Your task to perform on an android device: Play the last video I watched on Youtube Image 0: 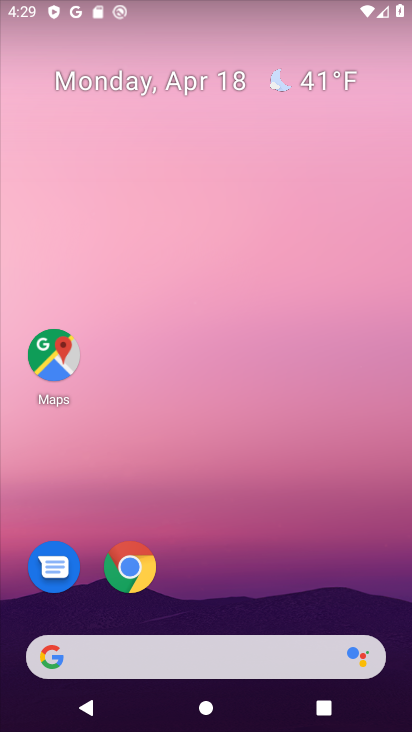
Step 0: drag from (193, 612) to (271, 63)
Your task to perform on an android device: Play the last video I watched on Youtube Image 1: 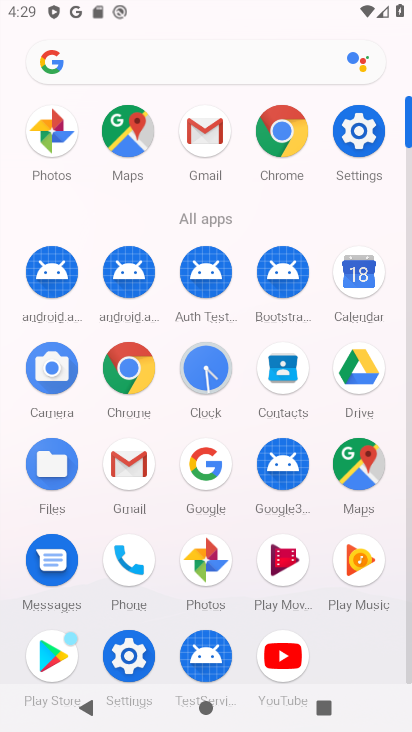
Step 1: drag from (163, 533) to (190, 298)
Your task to perform on an android device: Play the last video I watched on Youtube Image 2: 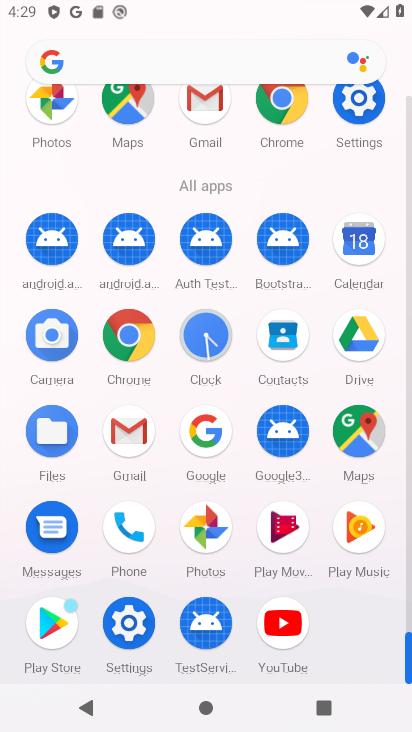
Step 2: click (287, 622)
Your task to perform on an android device: Play the last video I watched on Youtube Image 3: 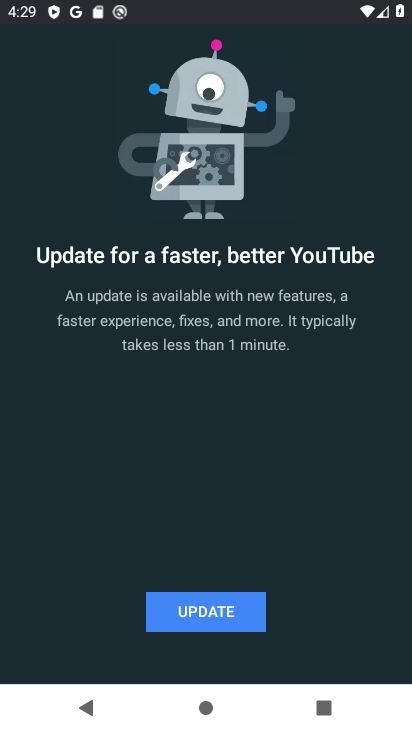
Step 3: click (200, 604)
Your task to perform on an android device: Play the last video I watched on Youtube Image 4: 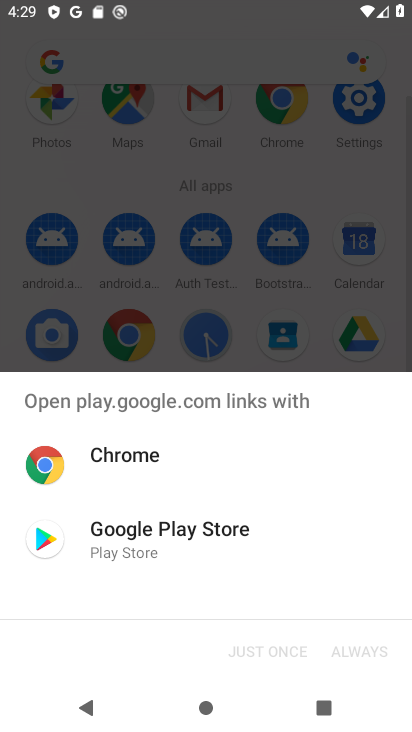
Step 4: click (167, 526)
Your task to perform on an android device: Play the last video I watched on Youtube Image 5: 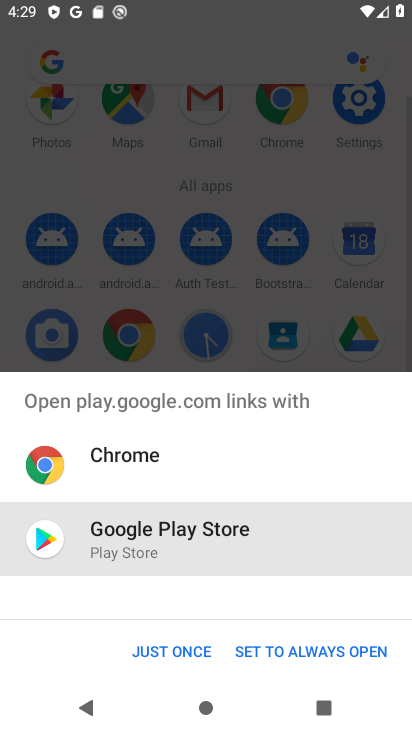
Step 5: click (193, 651)
Your task to perform on an android device: Play the last video I watched on Youtube Image 6: 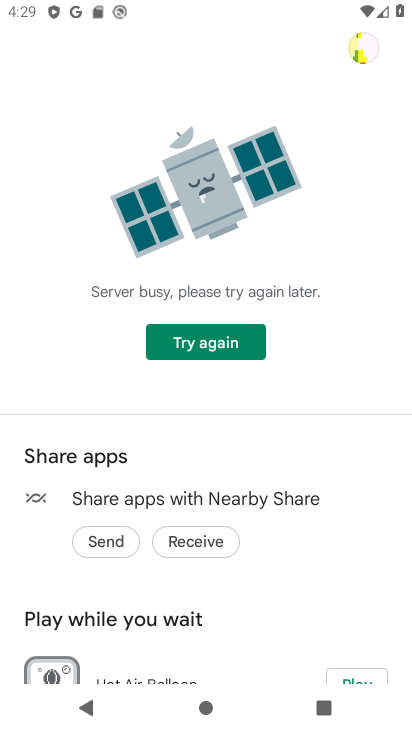
Step 6: drag from (288, 633) to (315, 341)
Your task to perform on an android device: Play the last video I watched on Youtube Image 7: 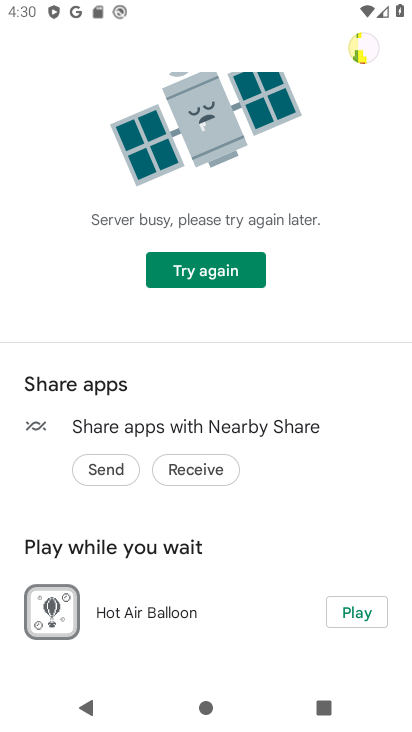
Step 7: press back button
Your task to perform on an android device: Play the last video I watched on Youtube Image 8: 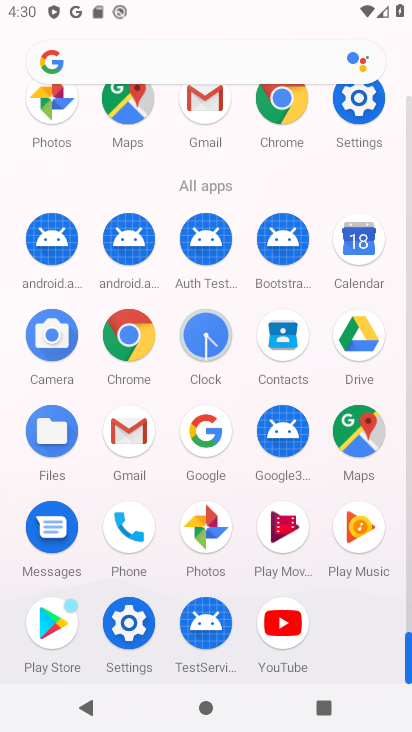
Step 8: click (278, 623)
Your task to perform on an android device: Play the last video I watched on Youtube Image 9: 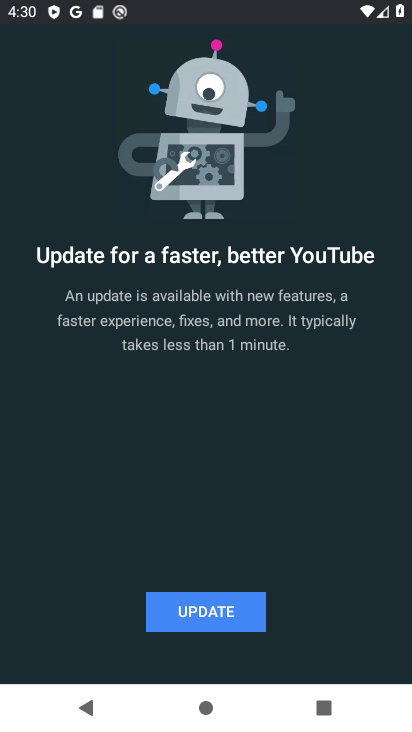
Step 9: click (187, 626)
Your task to perform on an android device: Play the last video I watched on Youtube Image 10: 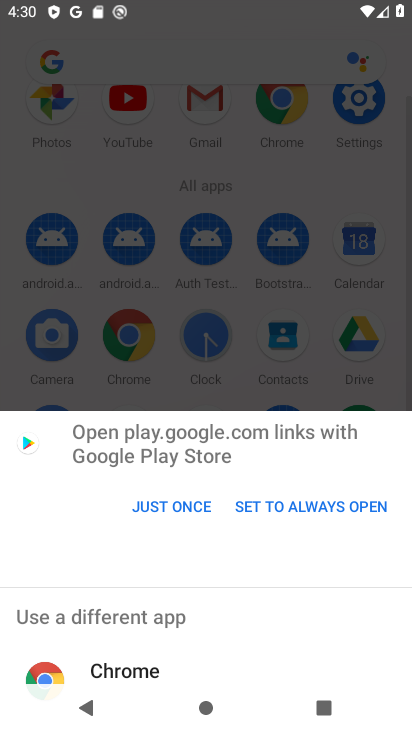
Step 10: click (131, 667)
Your task to perform on an android device: Play the last video I watched on Youtube Image 11: 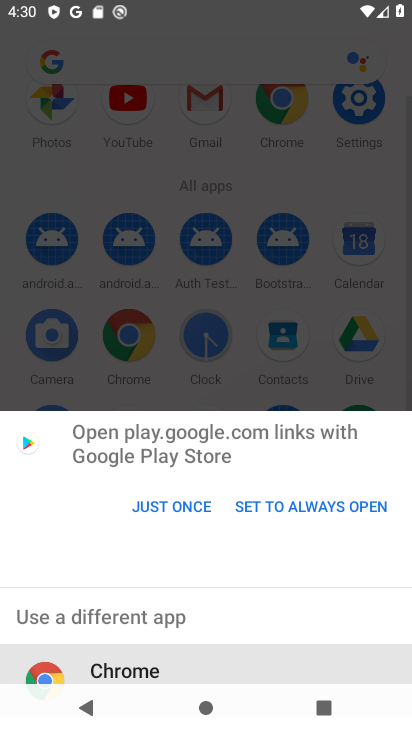
Step 11: click (160, 503)
Your task to perform on an android device: Play the last video I watched on Youtube Image 12: 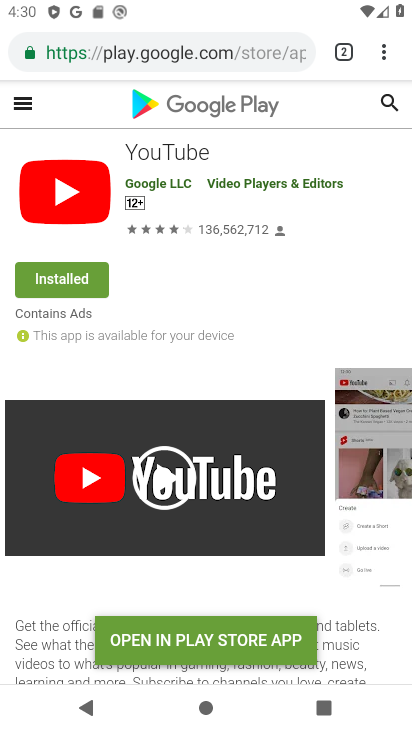
Step 12: click (178, 654)
Your task to perform on an android device: Play the last video I watched on Youtube Image 13: 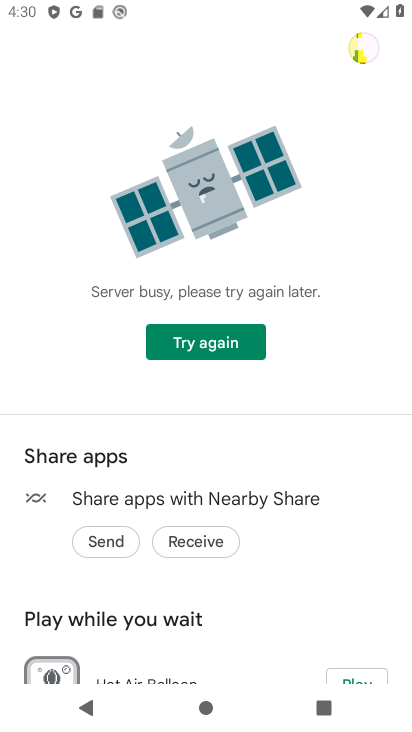
Step 13: click (215, 351)
Your task to perform on an android device: Play the last video I watched on Youtube Image 14: 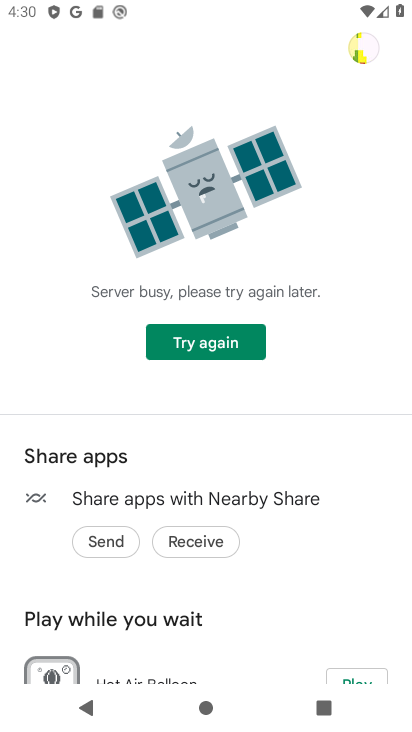
Step 14: click (215, 351)
Your task to perform on an android device: Play the last video I watched on Youtube Image 15: 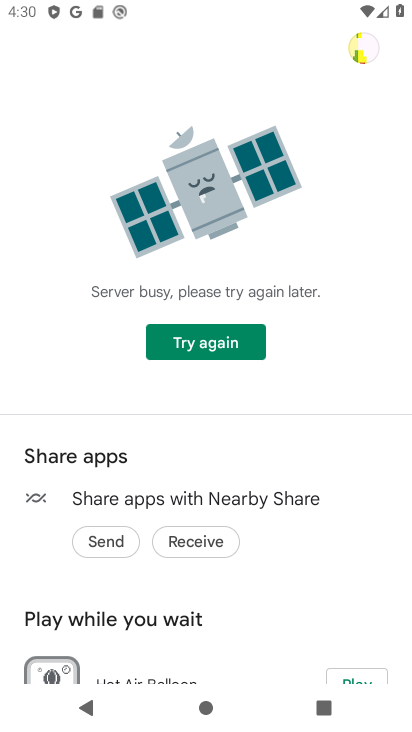
Step 15: task complete